Your task to perform on an android device: Go to eBay Image 0: 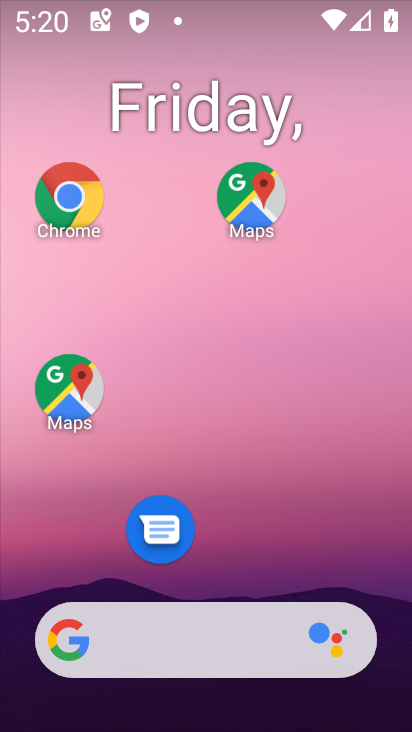
Step 0: click (74, 210)
Your task to perform on an android device: Go to eBay Image 1: 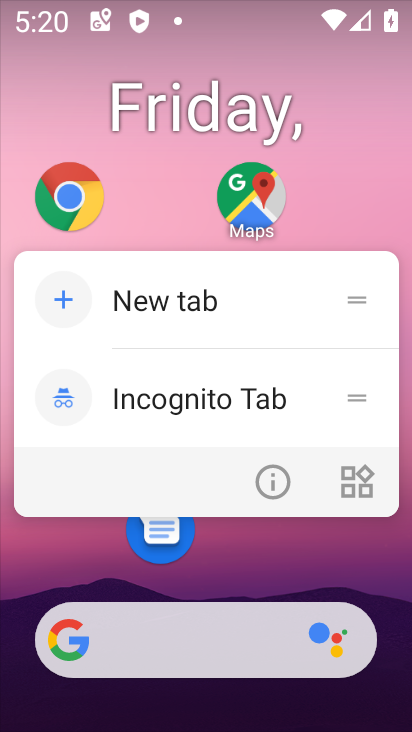
Step 1: click (67, 194)
Your task to perform on an android device: Go to eBay Image 2: 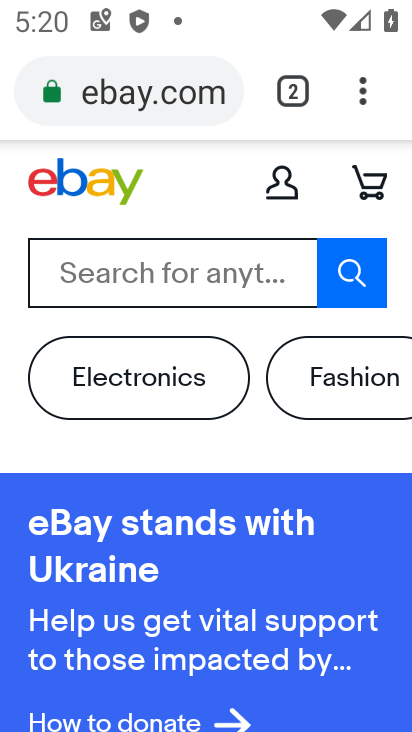
Step 2: task complete